Your task to perform on an android device: show emergency info Image 0: 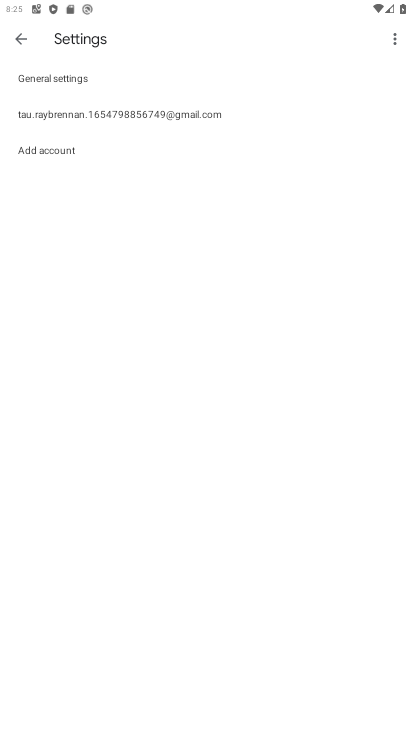
Step 0: drag from (140, 502) to (241, 208)
Your task to perform on an android device: show emergency info Image 1: 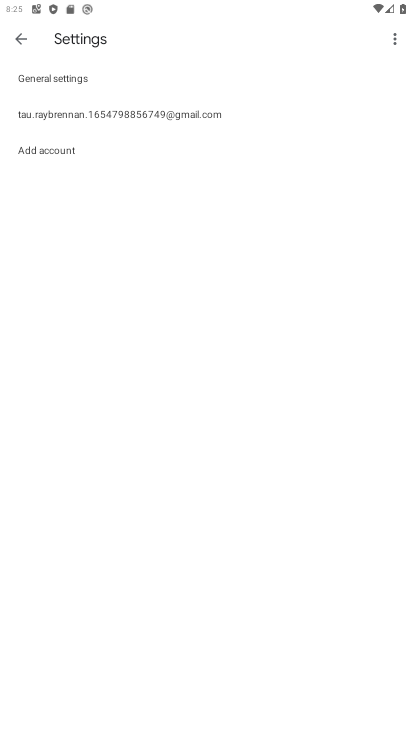
Step 1: drag from (222, 484) to (235, 154)
Your task to perform on an android device: show emergency info Image 2: 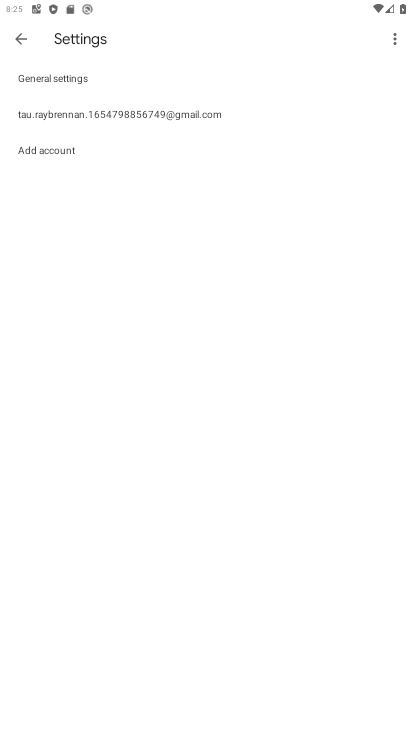
Step 2: press home button
Your task to perform on an android device: show emergency info Image 3: 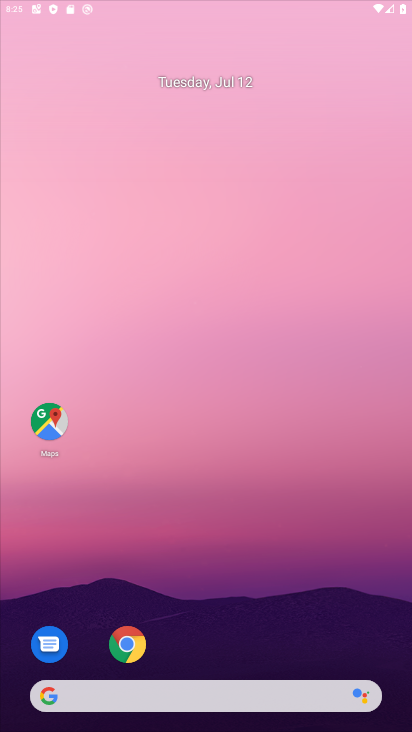
Step 3: drag from (179, 609) to (276, 12)
Your task to perform on an android device: show emergency info Image 4: 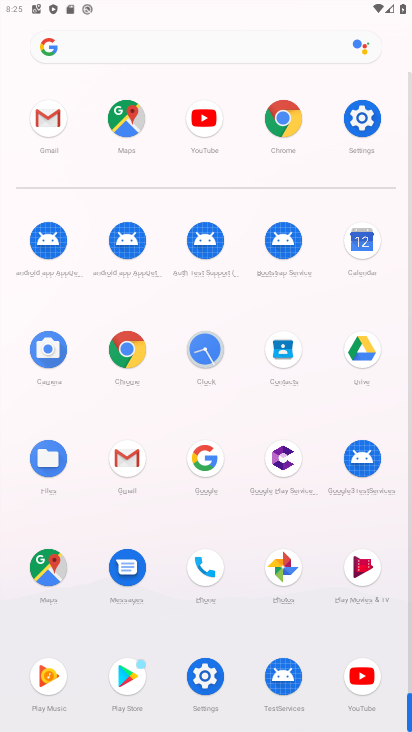
Step 4: click (364, 115)
Your task to perform on an android device: show emergency info Image 5: 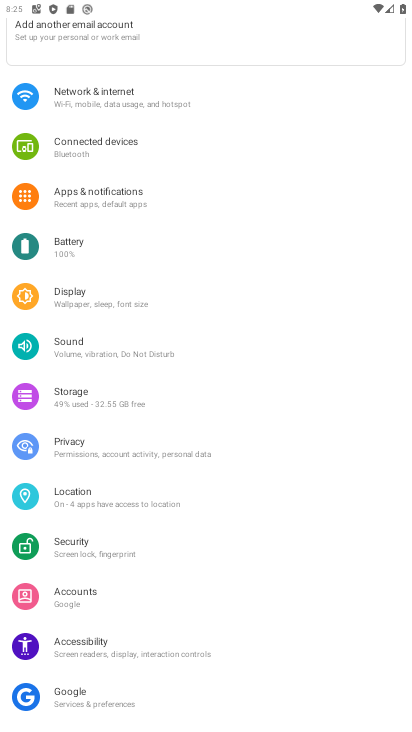
Step 5: drag from (197, 584) to (283, 54)
Your task to perform on an android device: show emergency info Image 6: 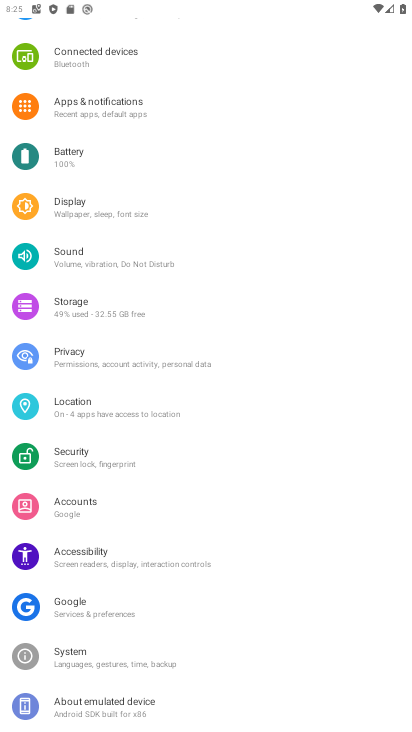
Step 6: click (148, 706)
Your task to perform on an android device: show emergency info Image 7: 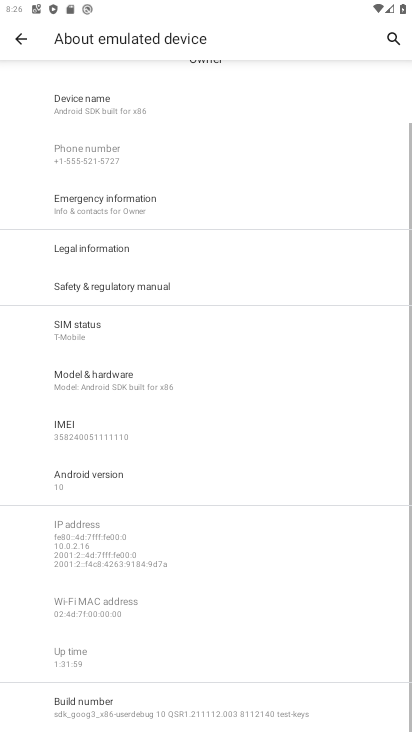
Step 7: drag from (146, 653) to (251, 216)
Your task to perform on an android device: show emergency info Image 8: 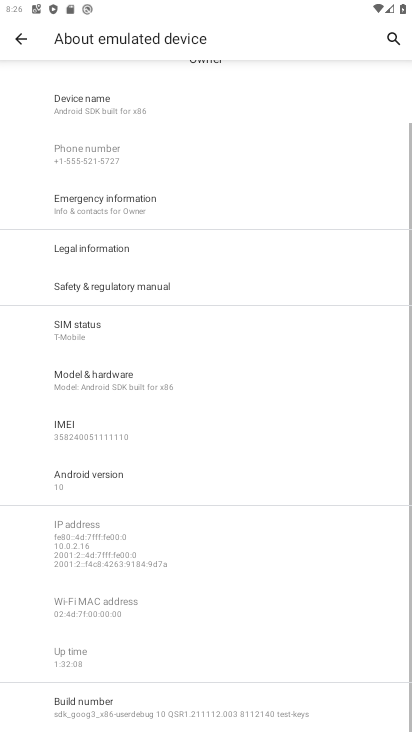
Step 8: click (143, 214)
Your task to perform on an android device: show emergency info Image 9: 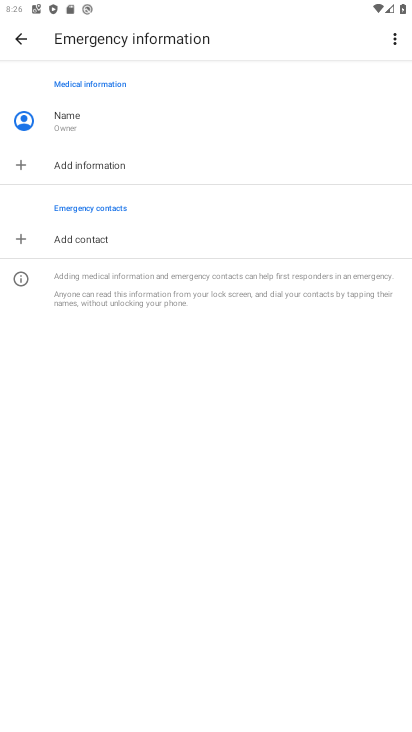
Step 9: task complete